Your task to perform on an android device: Is it going to rain this weekend? Image 0: 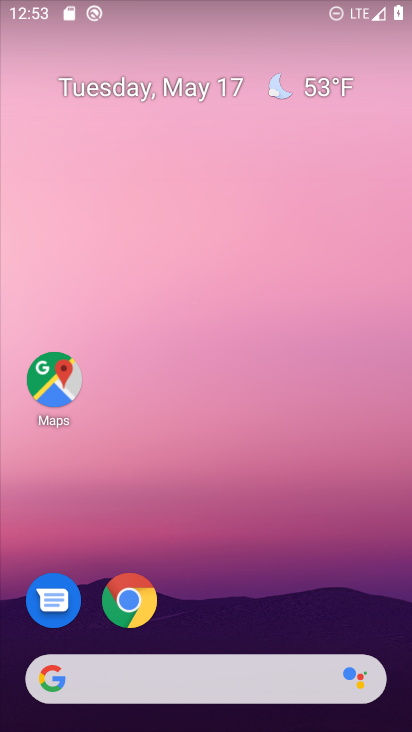
Step 0: drag from (256, 612) to (242, 128)
Your task to perform on an android device: Is it going to rain this weekend? Image 1: 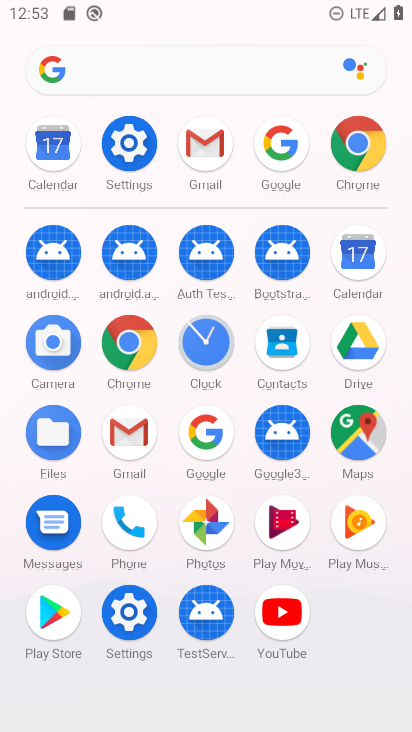
Step 1: click (298, 148)
Your task to perform on an android device: Is it going to rain this weekend? Image 2: 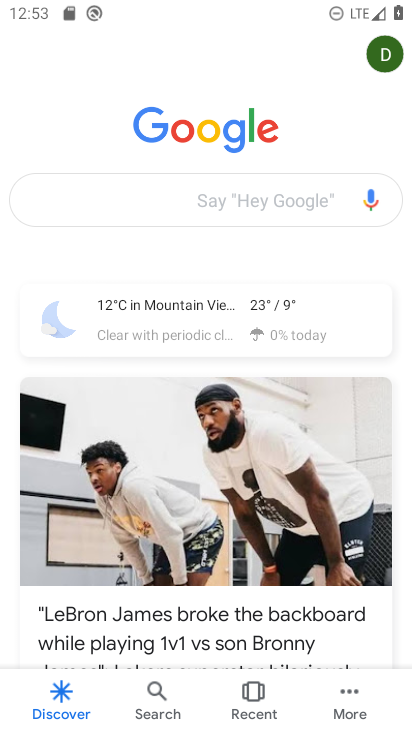
Step 2: click (250, 189)
Your task to perform on an android device: Is it going to rain this weekend? Image 3: 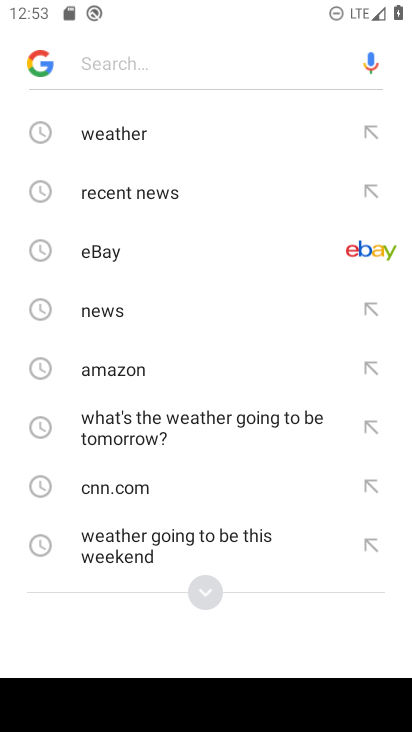
Step 3: click (189, 136)
Your task to perform on an android device: Is it going to rain this weekend? Image 4: 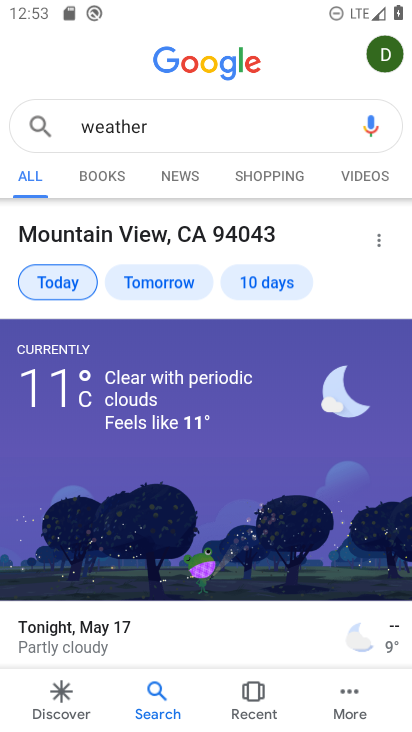
Step 4: click (265, 285)
Your task to perform on an android device: Is it going to rain this weekend? Image 5: 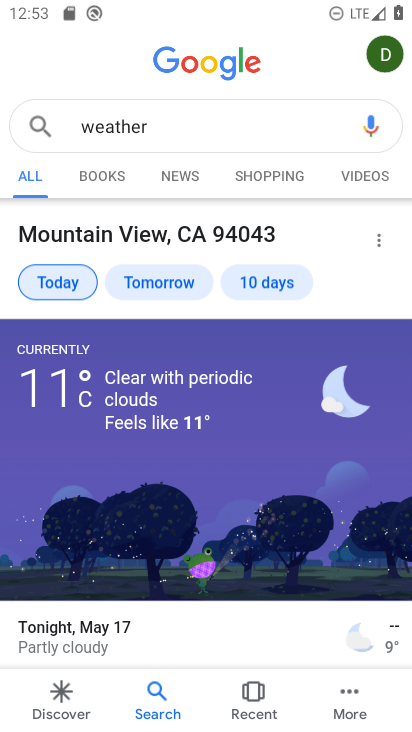
Step 5: click (276, 281)
Your task to perform on an android device: Is it going to rain this weekend? Image 6: 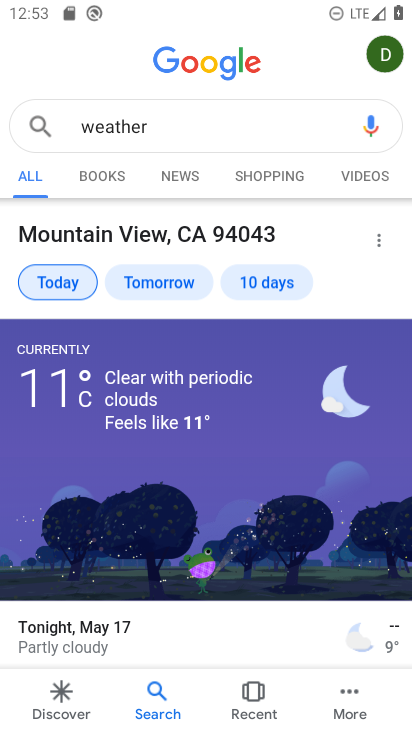
Step 6: click (278, 281)
Your task to perform on an android device: Is it going to rain this weekend? Image 7: 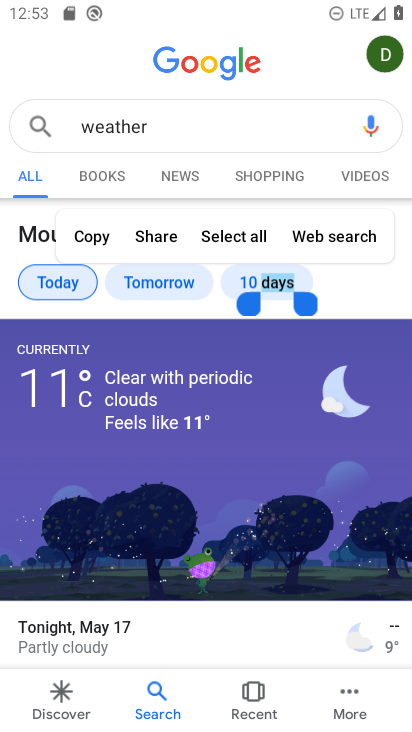
Step 7: click (280, 282)
Your task to perform on an android device: Is it going to rain this weekend? Image 8: 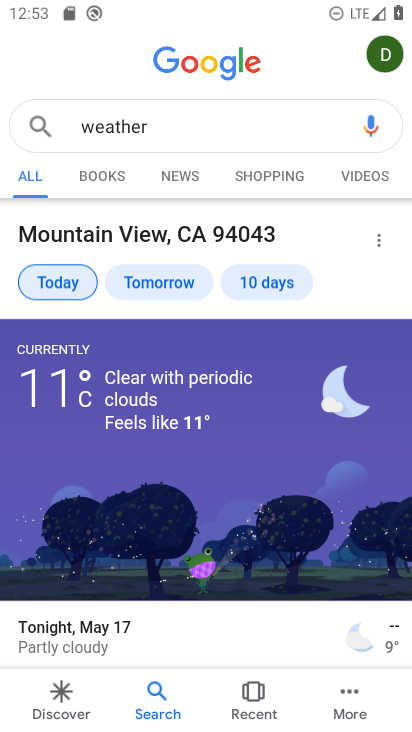
Step 8: click (347, 268)
Your task to perform on an android device: Is it going to rain this weekend? Image 9: 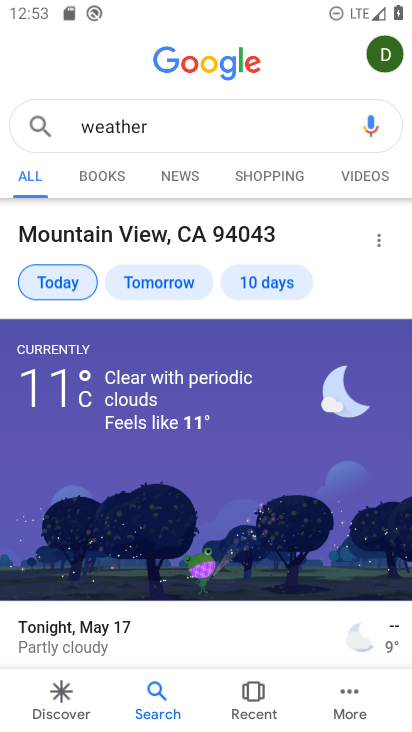
Step 9: click (264, 280)
Your task to perform on an android device: Is it going to rain this weekend? Image 10: 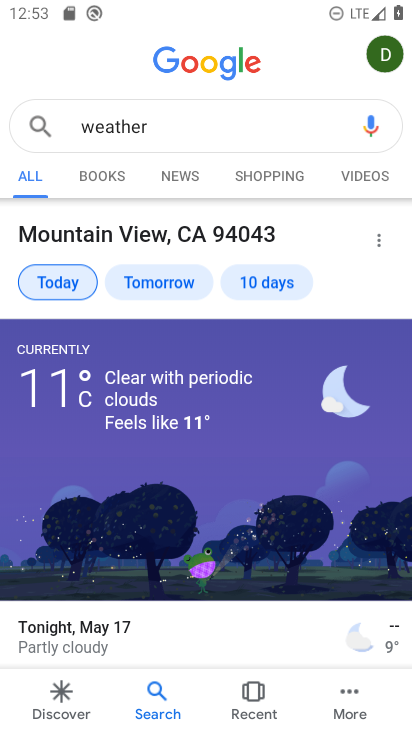
Step 10: task complete